Your task to perform on an android device: open the mobile data screen to see how much data has been used Image 0: 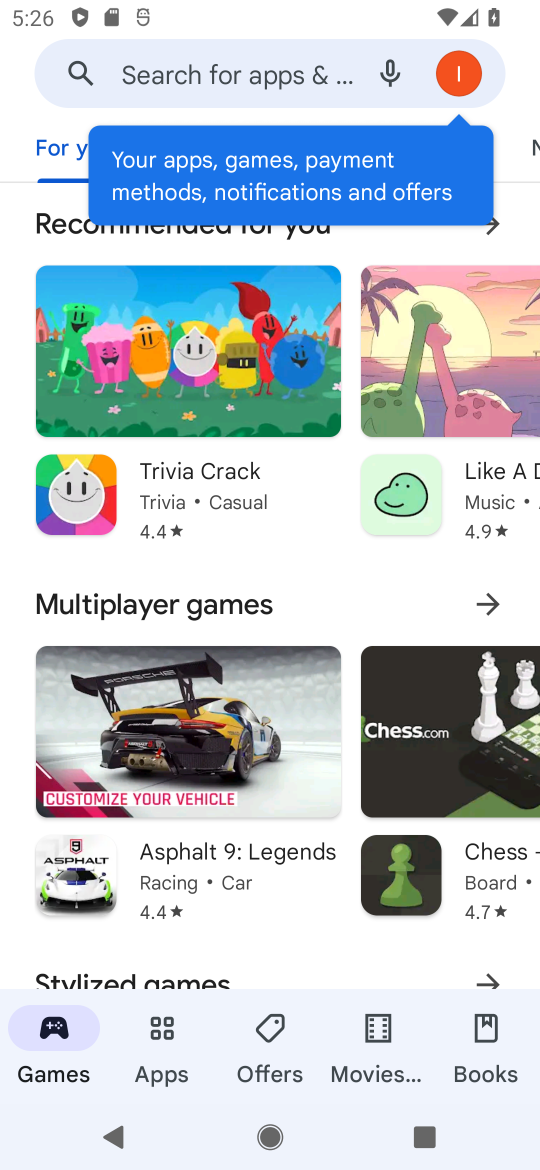
Step 0: press home button
Your task to perform on an android device: open the mobile data screen to see how much data has been used Image 1: 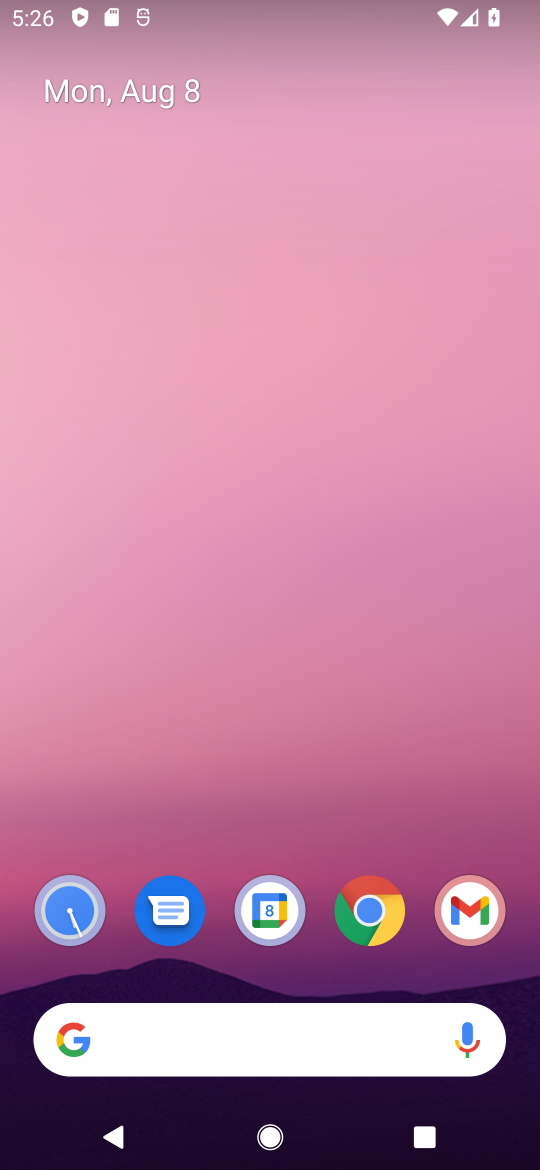
Step 1: drag from (202, 1047) to (219, 425)
Your task to perform on an android device: open the mobile data screen to see how much data has been used Image 2: 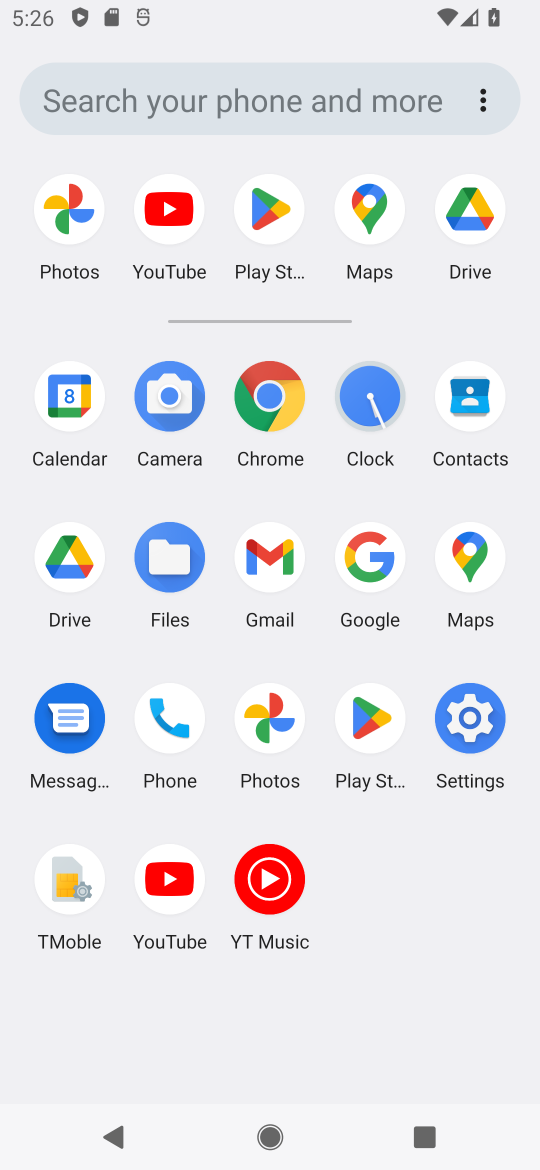
Step 2: click (467, 716)
Your task to perform on an android device: open the mobile data screen to see how much data has been used Image 3: 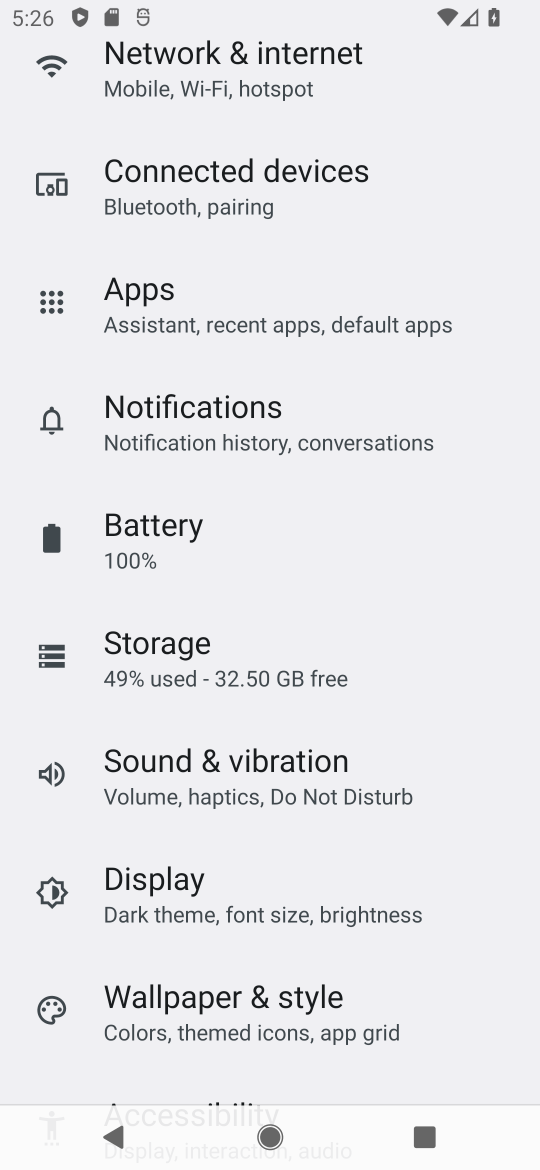
Step 3: click (184, 95)
Your task to perform on an android device: open the mobile data screen to see how much data has been used Image 4: 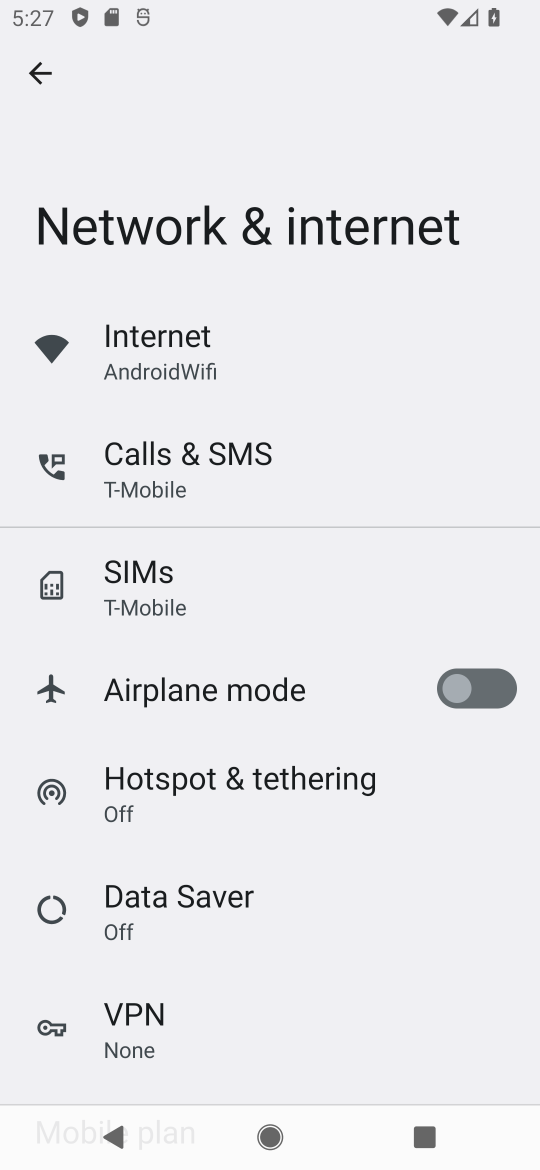
Step 4: click (144, 339)
Your task to perform on an android device: open the mobile data screen to see how much data has been used Image 5: 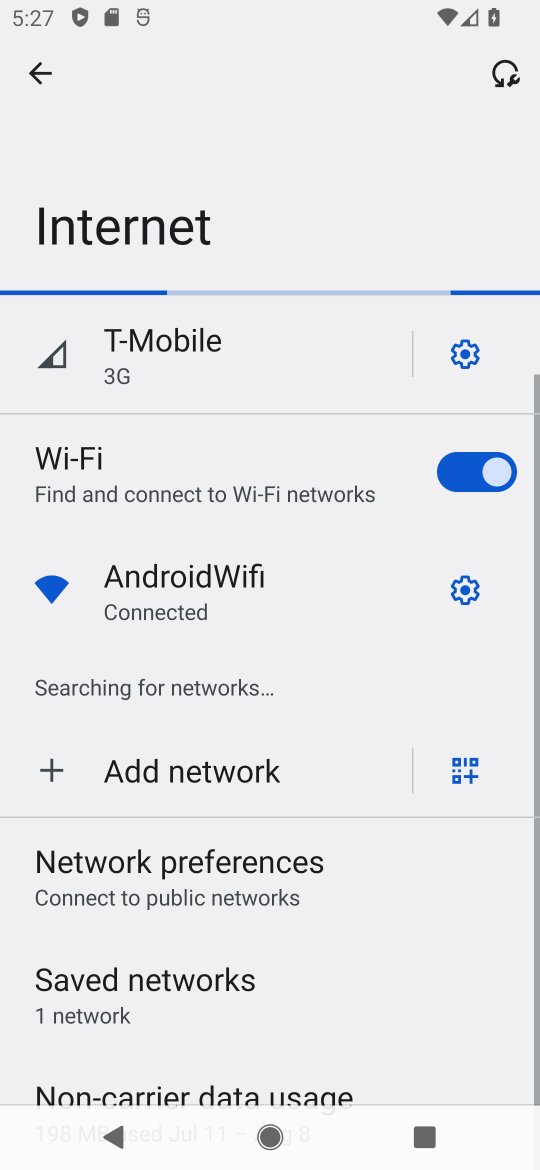
Step 5: click (465, 356)
Your task to perform on an android device: open the mobile data screen to see how much data has been used Image 6: 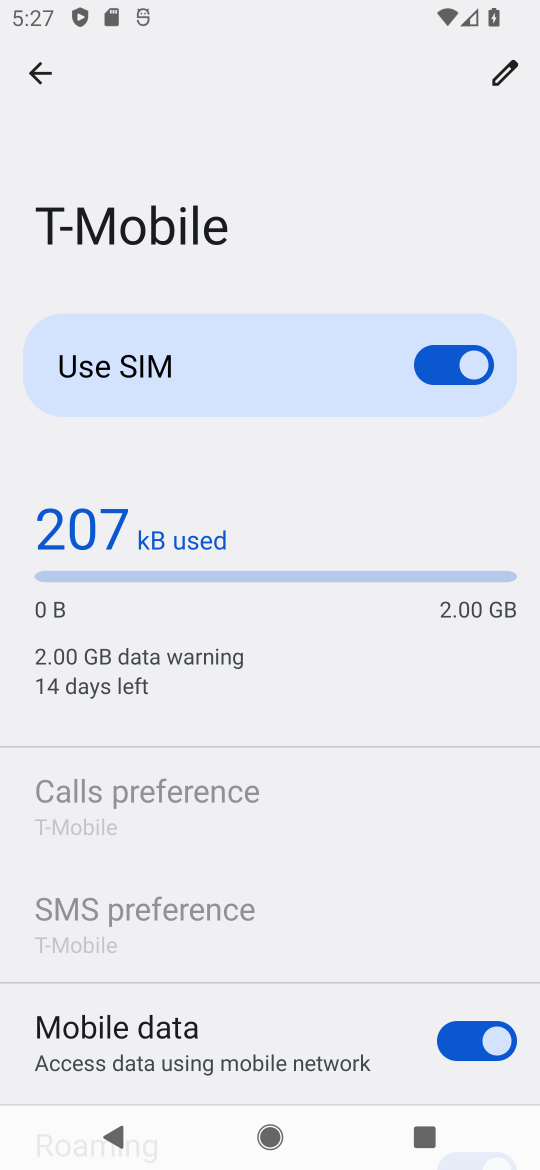
Step 6: task complete